Your task to perform on an android device: turn off improve location accuracy Image 0: 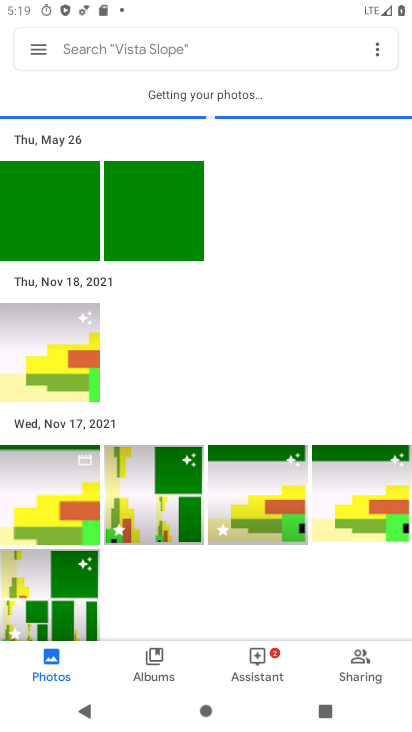
Step 0: press home button
Your task to perform on an android device: turn off improve location accuracy Image 1: 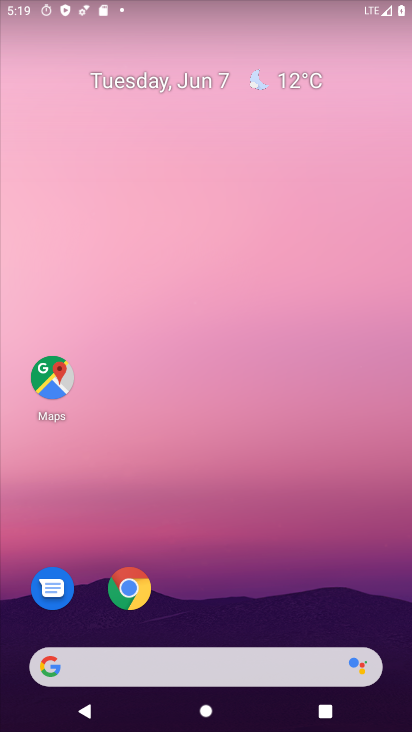
Step 1: drag from (213, 468) to (207, 157)
Your task to perform on an android device: turn off improve location accuracy Image 2: 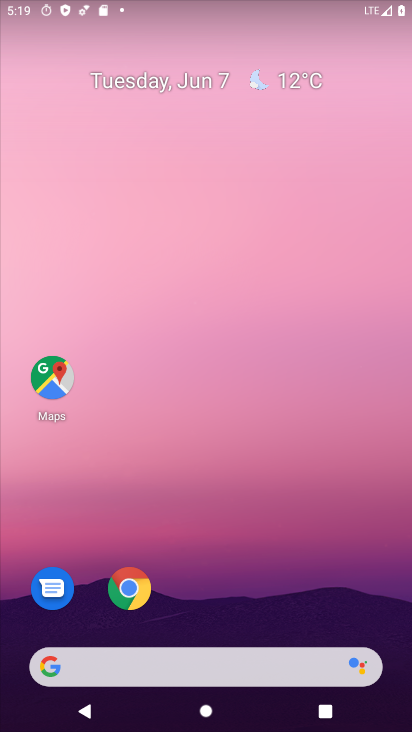
Step 2: drag from (225, 619) to (298, 34)
Your task to perform on an android device: turn off improve location accuracy Image 3: 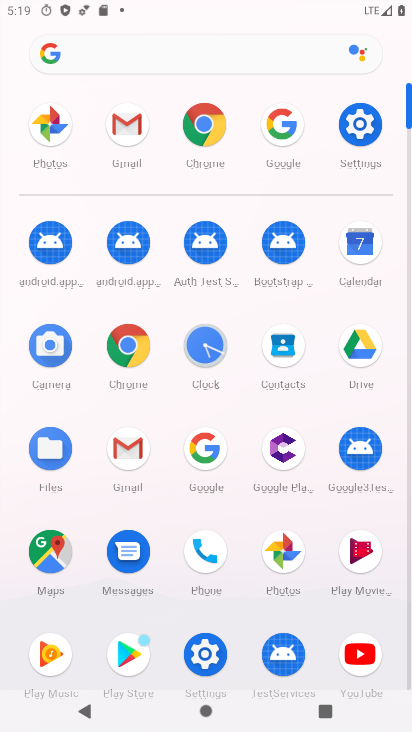
Step 3: click (355, 128)
Your task to perform on an android device: turn off improve location accuracy Image 4: 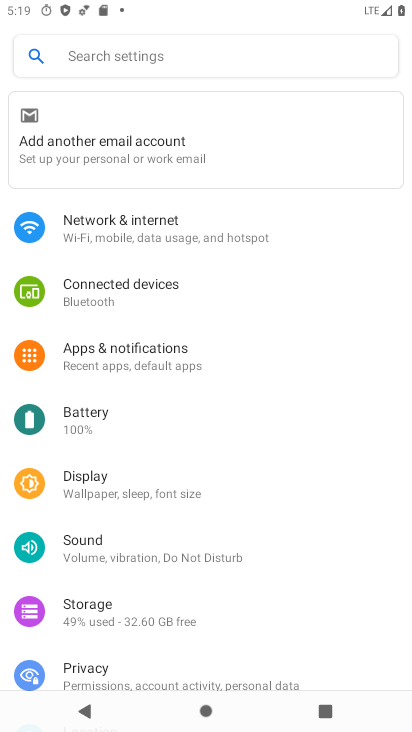
Step 4: drag from (144, 550) to (145, 200)
Your task to perform on an android device: turn off improve location accuracy Image 5: 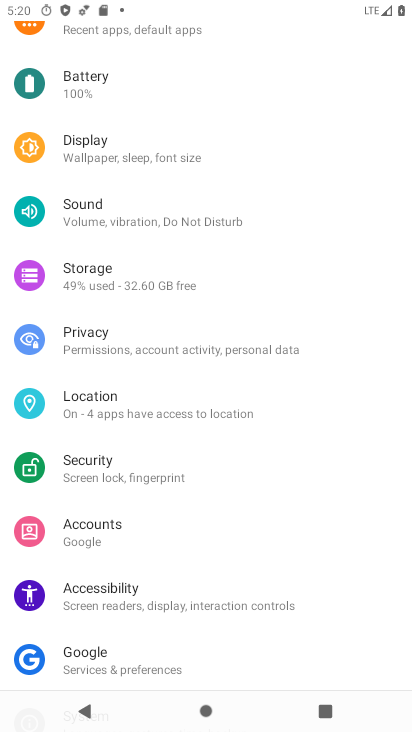
Step 5: drag from (146, 633) to (172, 277)
Your task to perform on an android device: turn off improve location accuracy Image 6: 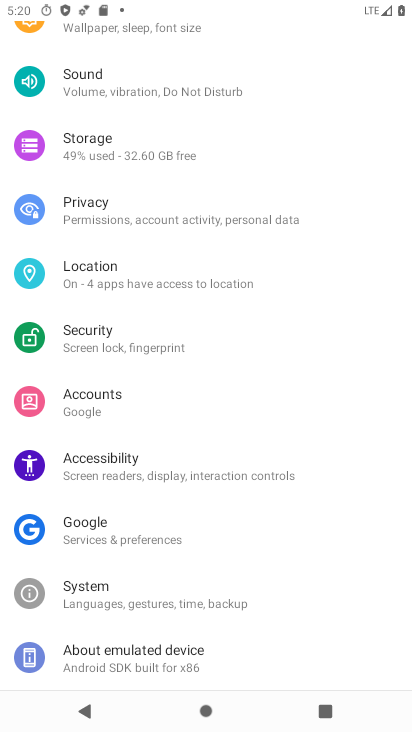
Step 6: click (105, 274)
Your task to perform on an android device: turn off improve location accuracy Image 7: 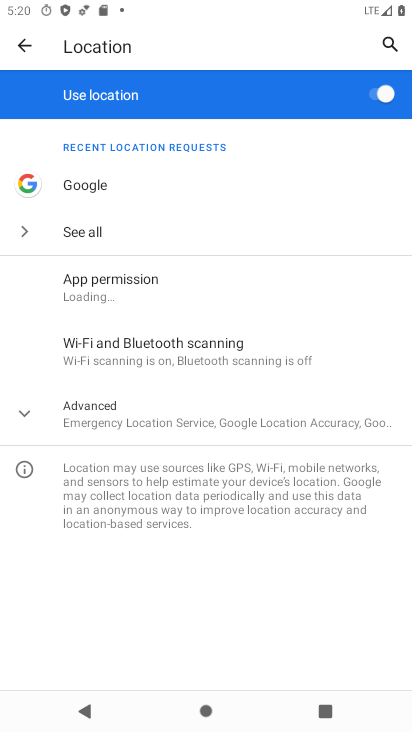
Step 7: click (82, 418)
Your task to perform on an android device: turn off improve location accuracy Image 8: 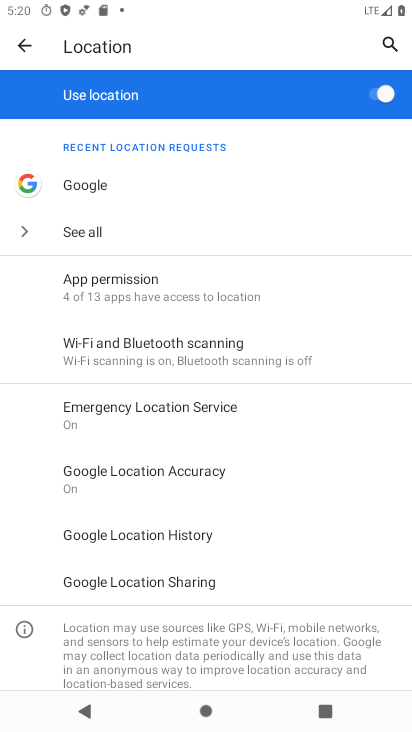
Step 8: click (183, 487)
Your task to perform on an android device: turn off improve location accuracy Image 9: 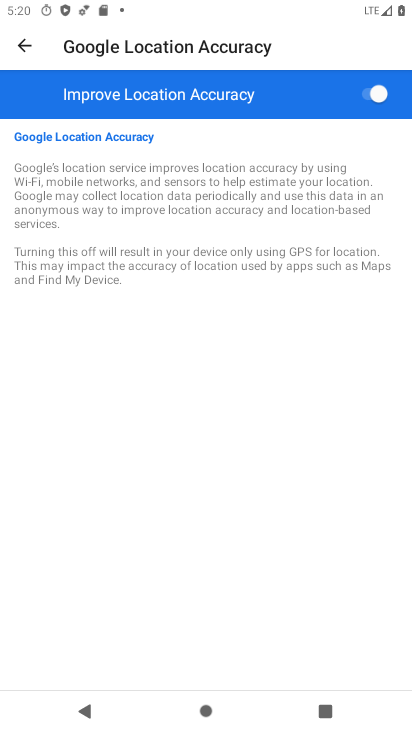
Step 9: click (364, 104)
Your task to perform on an android device: turn off improve location accuracy Image 10: 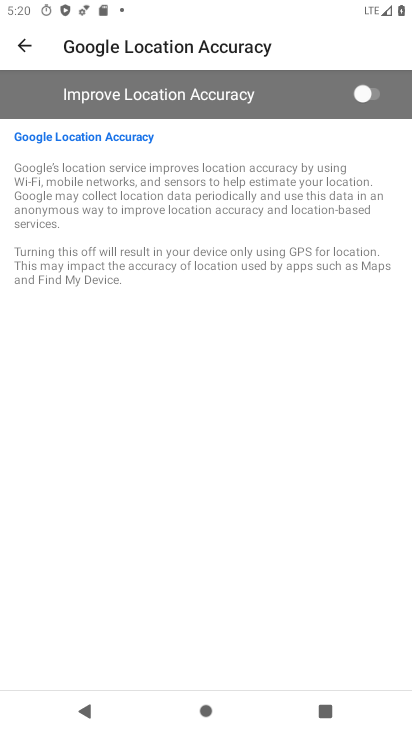
Step 10: task complete